Your task to perform on an android device: Search for seafood restaurants on Google Maps Image 0: 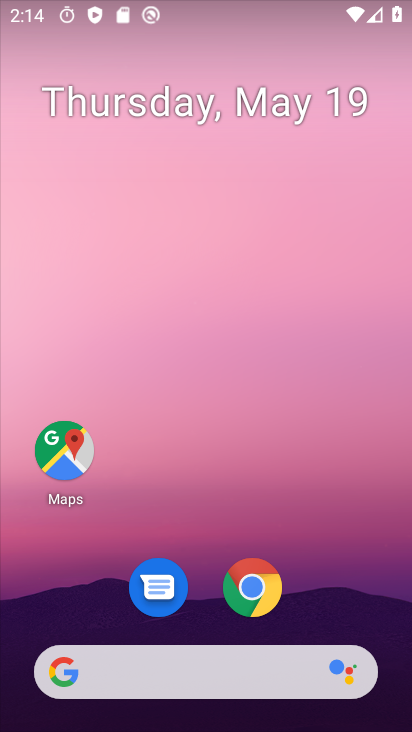
Step 0: drag from (180, 723) to (185, 95)
Your task to perform on an android device: Search for seafood restaurants on Google Maps Image 1: 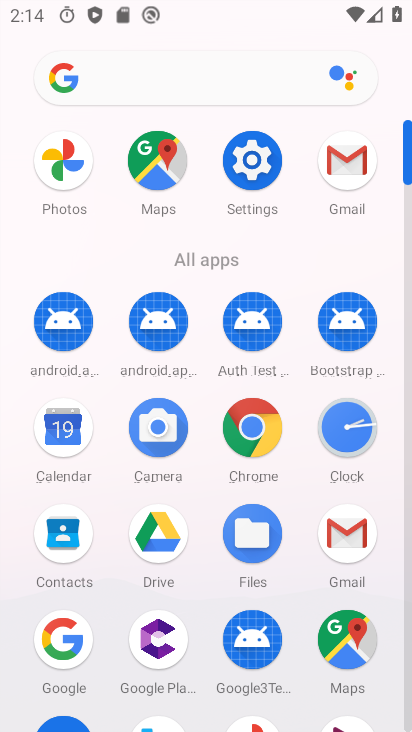
Step 1: click (348, 641)
Your task to perform on an android device: Search for seafood restaurants on Google Maps Image 2: 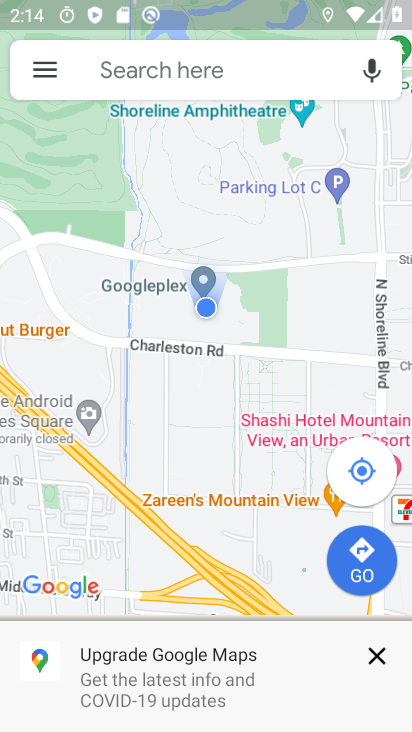
Step 2: click (183, 64)
Your task to perform on an android device: Search for seafood restaurants on Google Maps Image 3: 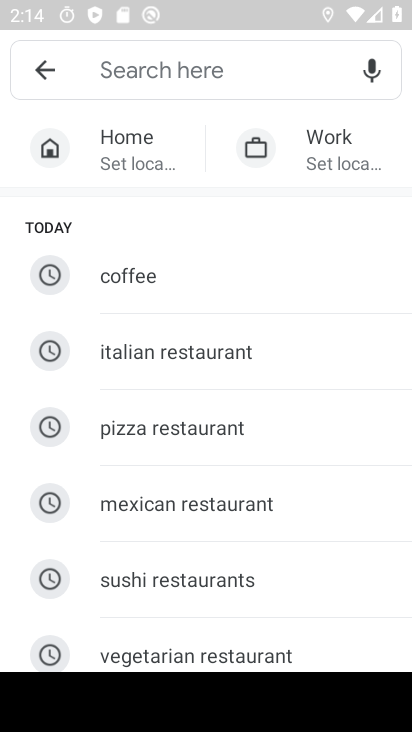
Step 3: type "seafood restaurants"
Your task to perform on an android device: Search for seafood restaurants on Google Maps Image 4: 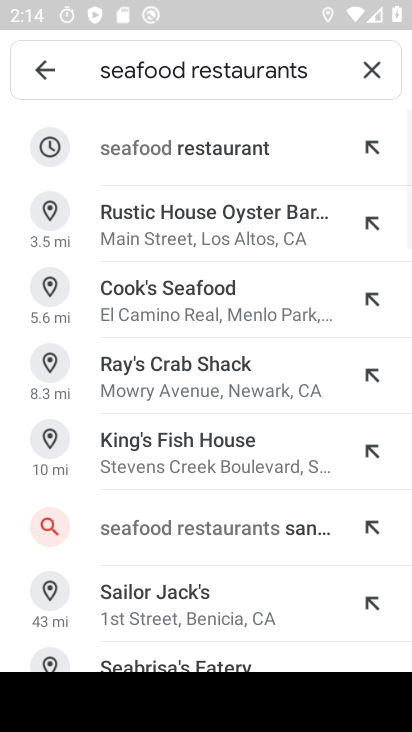
Step 4: click (176, 143)
Your task to perform on an android device: Search for seafood restaurants on Google Maps Image 5: 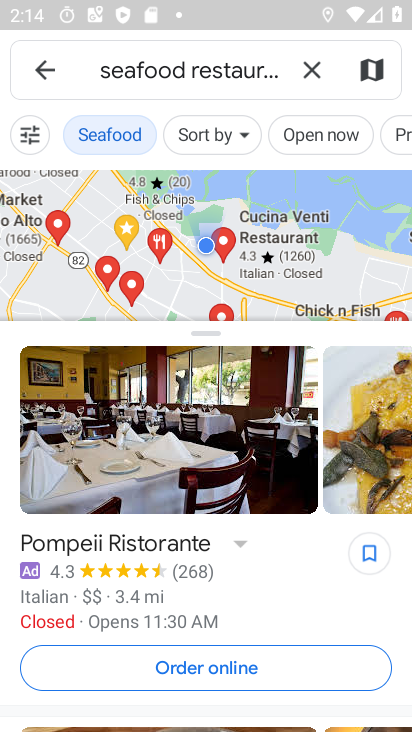
Step 5: task complete